Your task to perform on an android device: turn on the 24-hour format for clock Image 0: 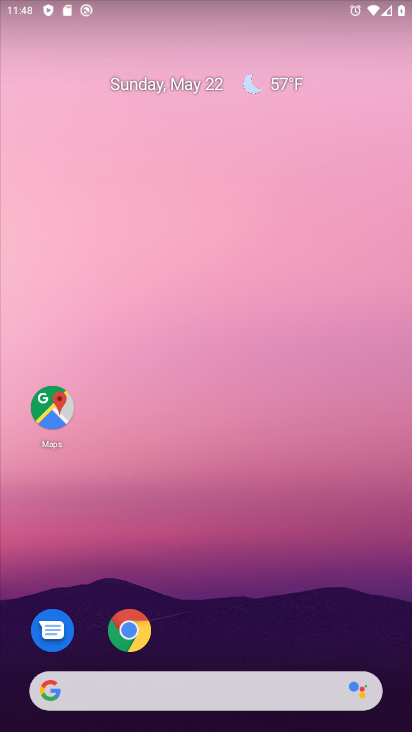
Step 0: drag from (301, 558) to (175, 42)
Your task to perform on an android device: turn on the 24-hour format for clock Image 1: 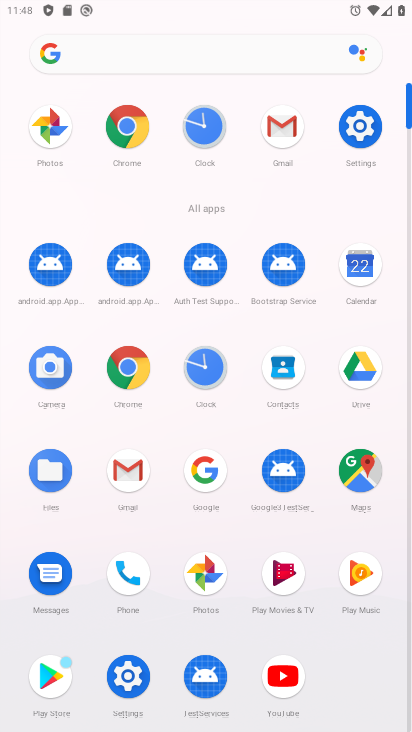
Step 1: click (209, 360)
Your task to perform on an android device: turn on the 24-hour format for clock Image 2: 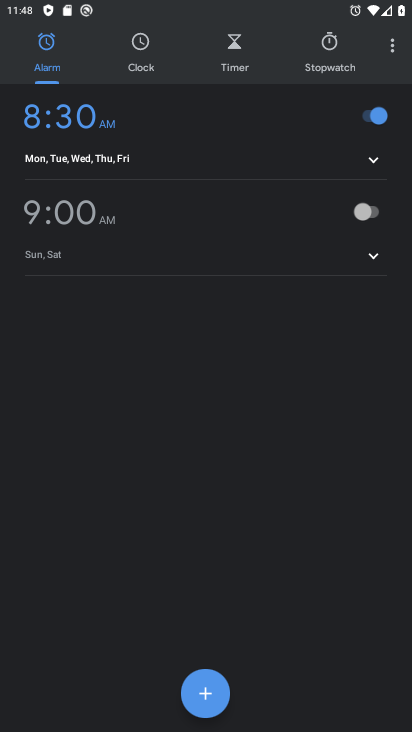
Step 2: click (386, 48)
Your task to perform on an android device: turn on the 24-hour format for clock Image 3: 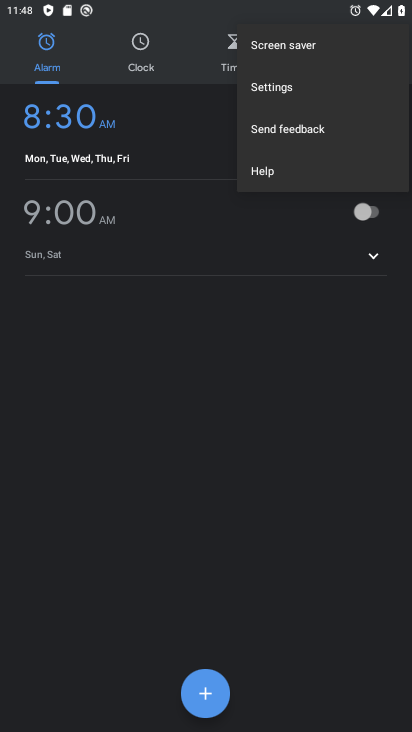
Step 3: click (298, 73)
Your task to perform on an android device: turn on the 24-hour format for clock Image 4: 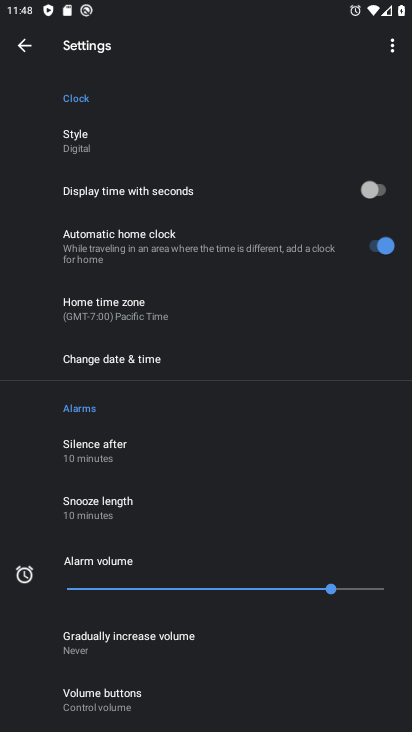
Step 4: click (151, 365)
Your task to perform on an android device: turn on the 24-hour format for clock Image 5: 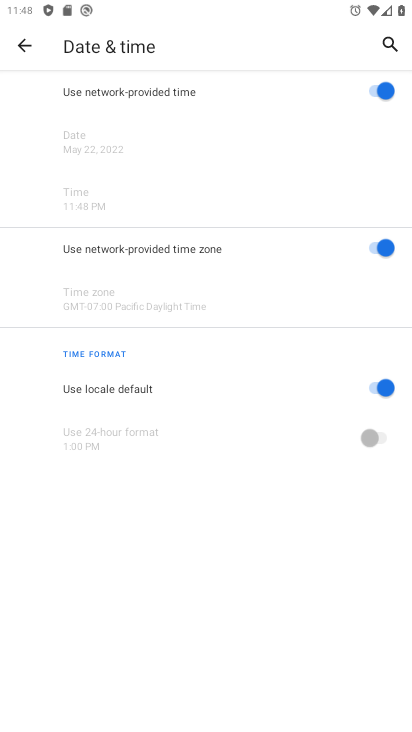
Step 5: click (380, 392)
Your task to perform on an android device: turn on the 24-hour format for clock Image 6: 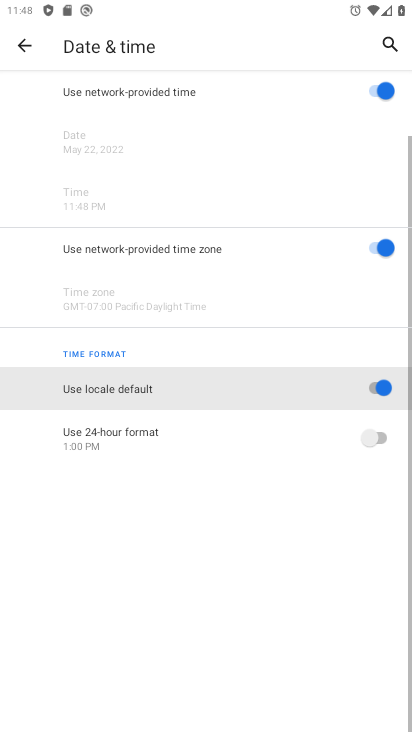
Step 6: click (364, 443)
Your task to perform on an android device: turn on the 24-hour format for clock Image 7: 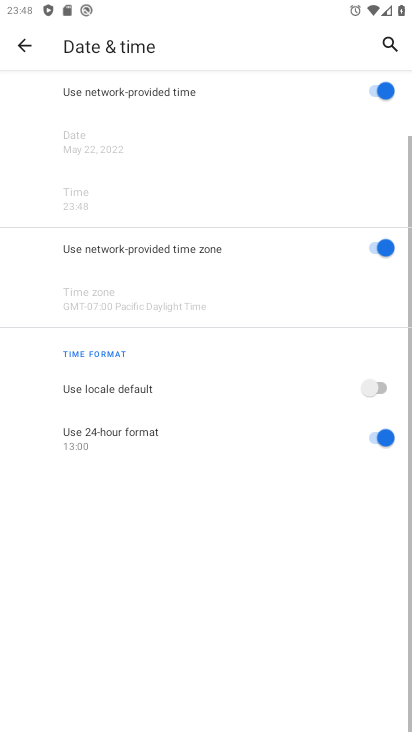
Step 7: task complete